Your task to perform on an android device: Open Google Maps Image 0: 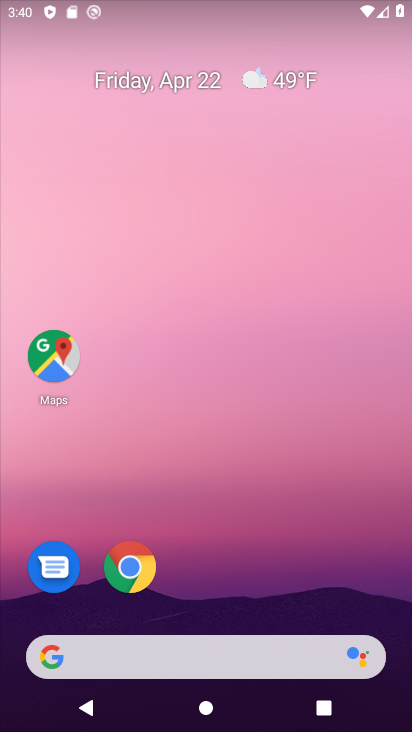
Step 0: drag from (227, 617) to (226, 232)
Your task to perform on an android device: Open Google Maps Image 1: 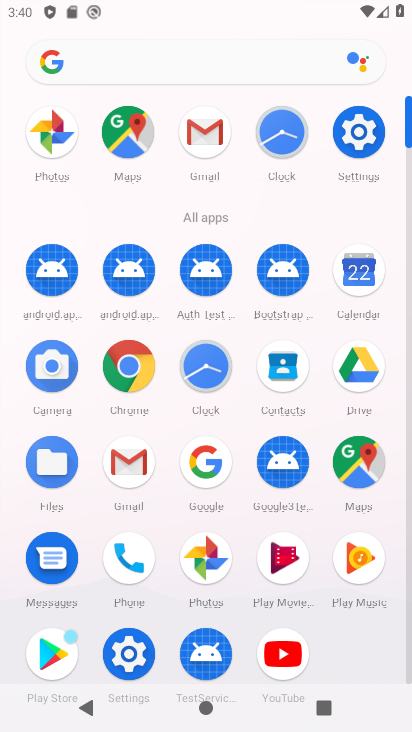
Step 1: click (360, 469)
Your task to perform on an android device: Open Google Maps Image 2: 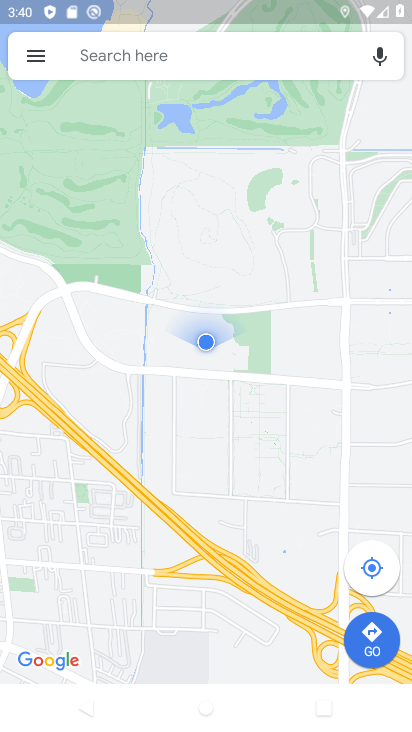
Step 2: task complete